Your task to perform on an android device: turn off wifi Image 0: 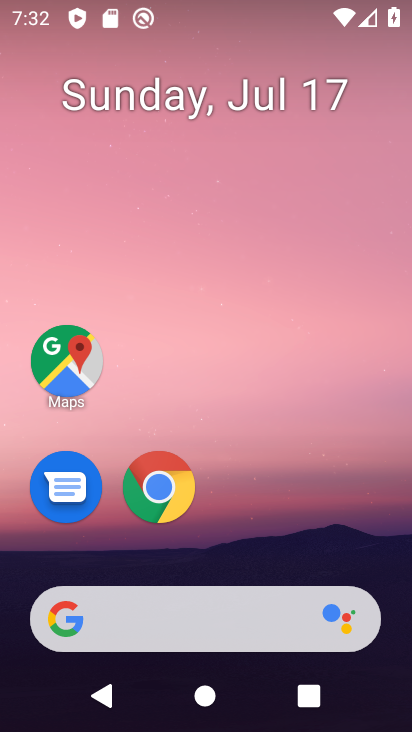
Step 0: drag from (360, 551) to (359, 61)
Your task to perform on an android device: turn off wifi Image 1: 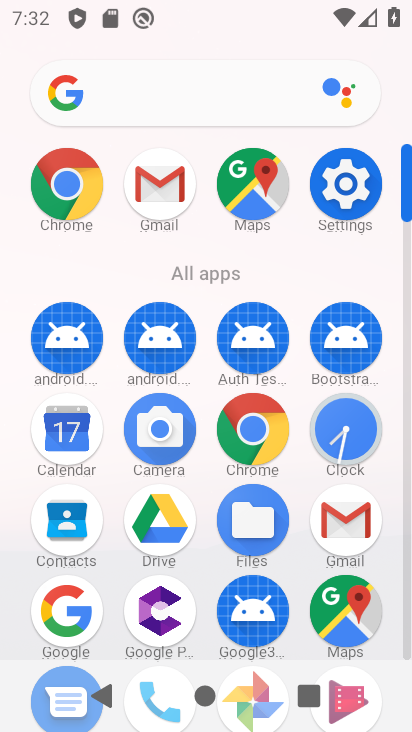
Step 1: click (364, 189)
Your task to perform on an android device: turn off wifi Image 2: 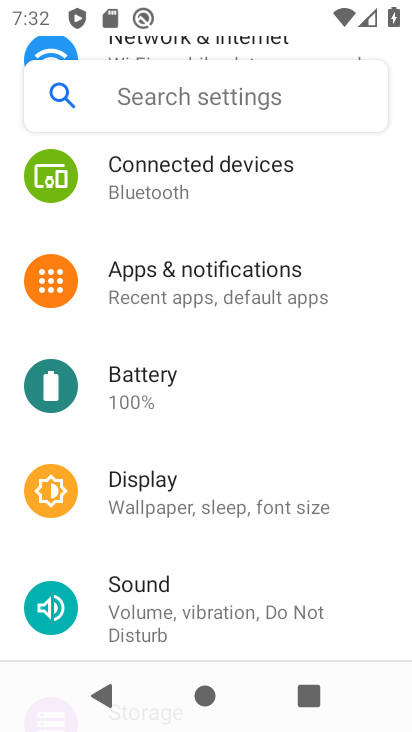
Step 2: drag from (298, 403) to (301, 349)
Your task to perform on an android device: turn off wifi Image 3: 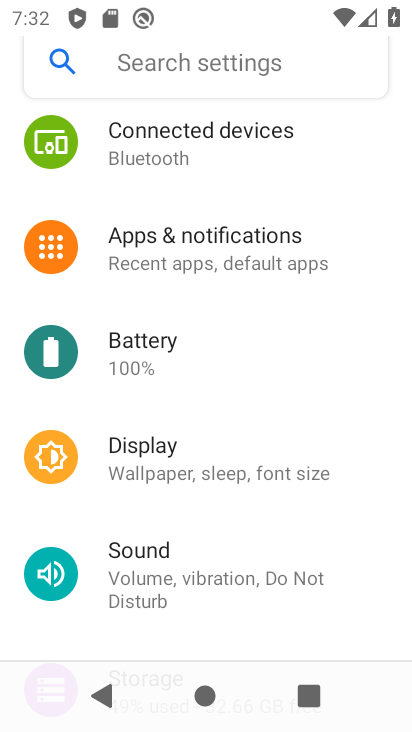
Step 3: drag from (356, 499) to (350, 398)
Your task to perform on an android device: turn off wifi Image 4: 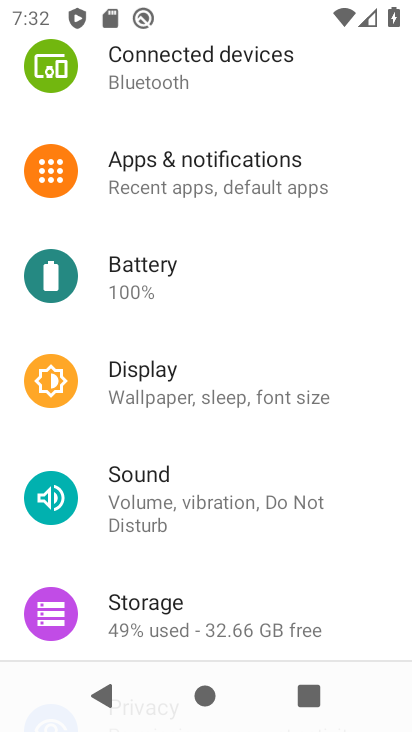
Step 4: drag from (356, 537) to (367, 425)
Your task to perform on an android device: turn off wifi Image 5: 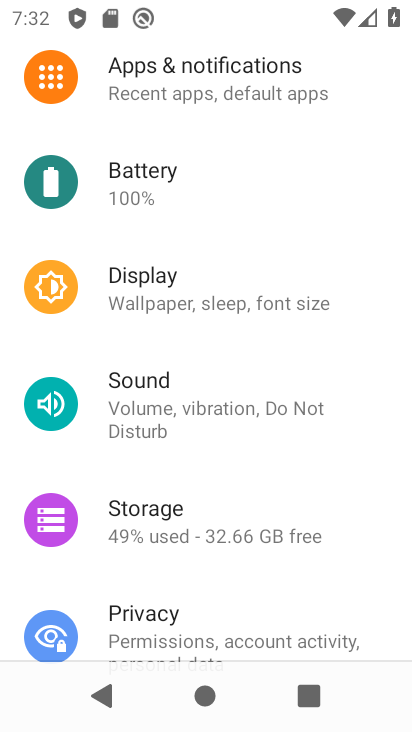
Step 5: drag from (363, 547) to (356, 417)
Your task to perform on an android device: turn off wifi Image 6: 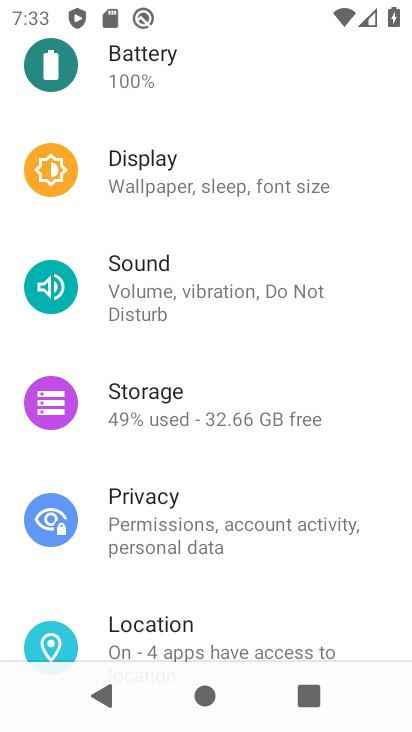
Step 6: drag from (343, 590) to (354, 456)
Your task to perform on an android device: turn off wifi Image 7: 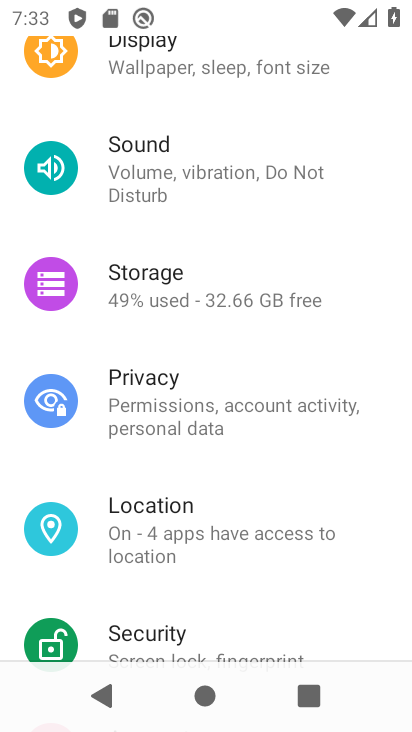
Step 7: drag from (351, 606) to (352, 455)
Your task to perform on an android device: turn off wifi Image 8: 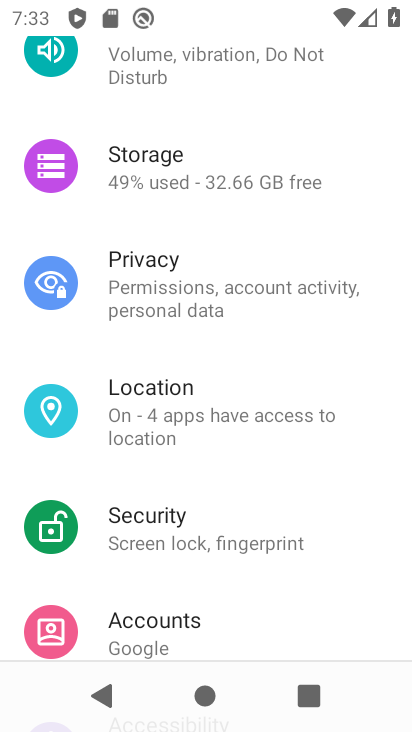
Step 8: drag from (333, 598) to (347, 461)
Your task to perform on an android device: turn off wifi Image 9: 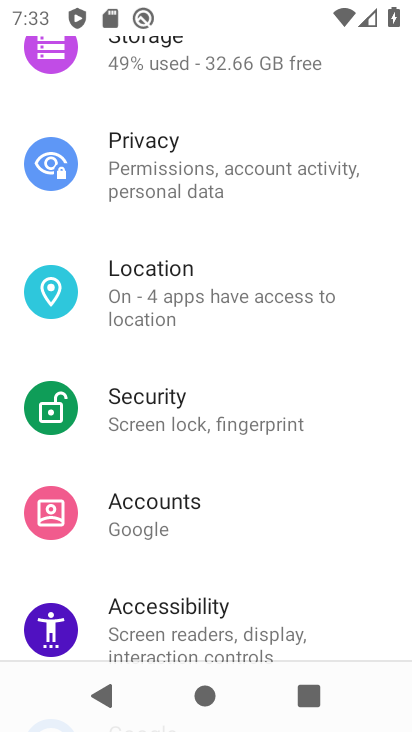
Step 9: drag from (352, 586) to (349, 459)
Your task to perform on an android device: turn off wifi Image 10: 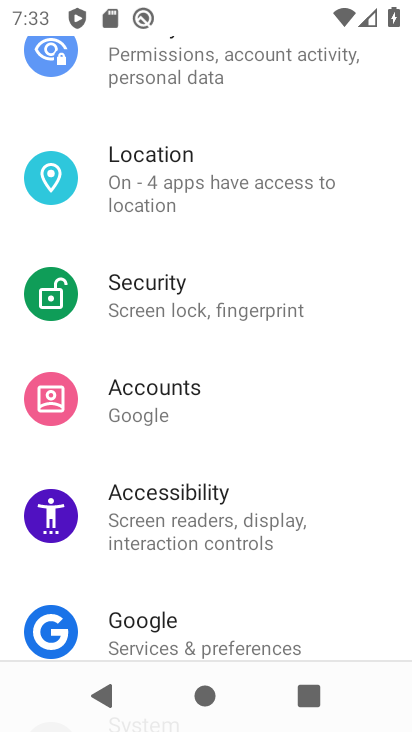
Step 10: drag from (342, 553) to (343, 435)
Your task to perform on an android device: turn off wifi Image 11: 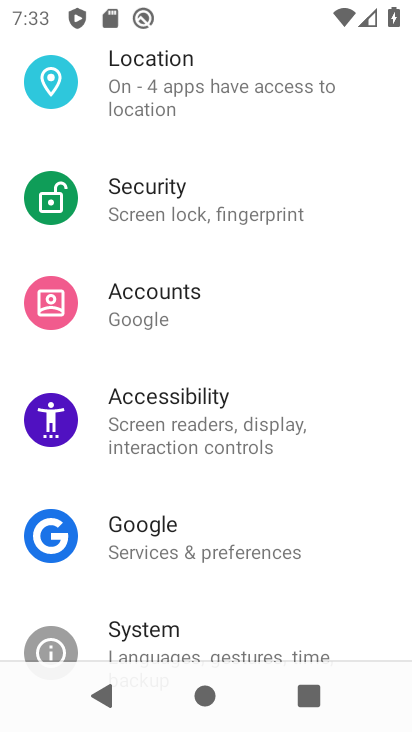
Step 11: drag from (344, 584) to (346, 451)
Your task to perform on an android device: turn off wifi Image 12: 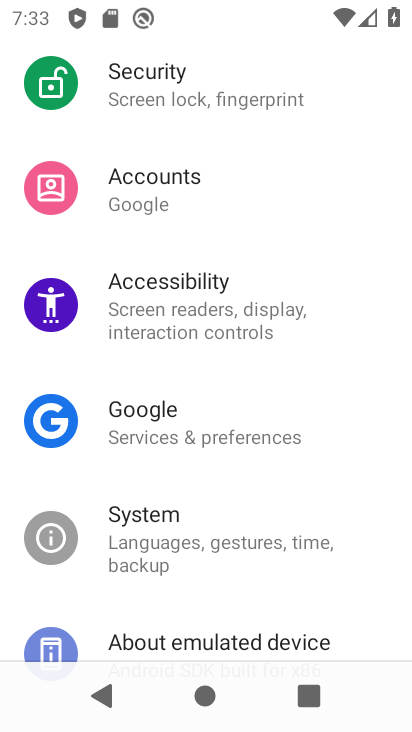
Step 12: drag from (360, 211) to (358, 310)
Your task to perform on an android device: turn off wifi Image 13: 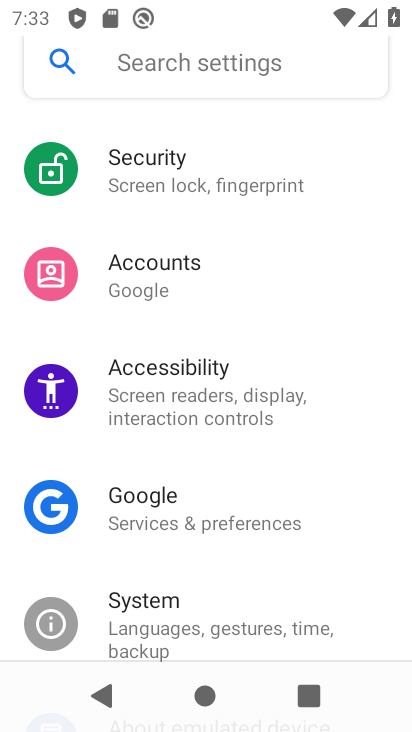
Step 13: drag from (352, 231) to (343, 349)
Your task to perform on an android device: turn off wifi Image 14: 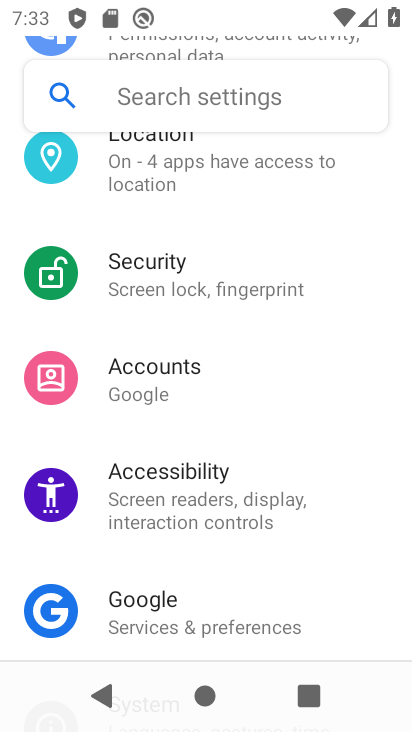
Step 14: drag from (335, 245) to (336, 353)
Your task to perform on an android device: turn off wifi Image 15: 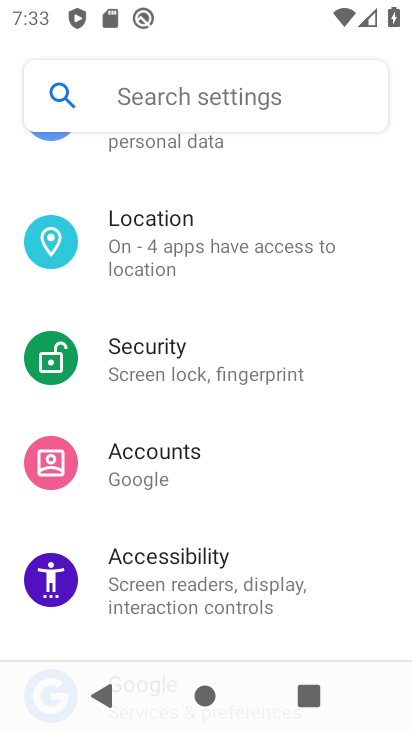
Step 15: drag from (366, 221) to (350, 337)
Your task to perform on an android device: turn off wifi Image 16: 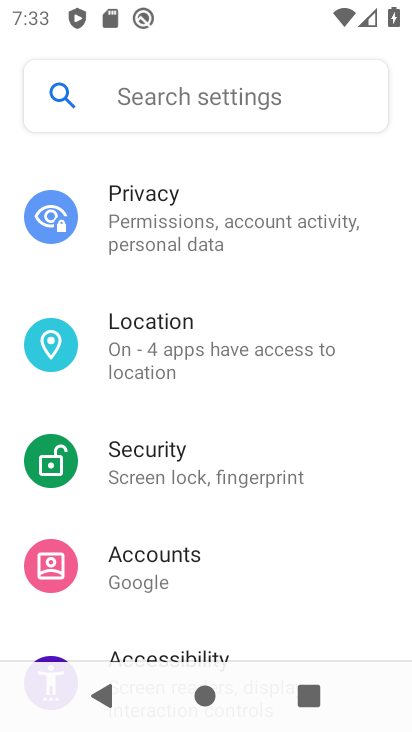
Step 16: drag from (370, 189) to (358, 321)
Your task to perform on an android device: turn off wifi Image 17: 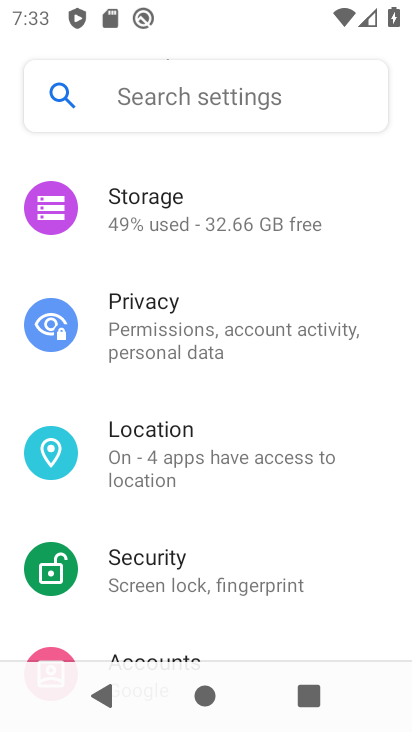
Step 17: drag from (369, 200) to (364, 391)
Your task to perform on an android device: turn off wifi Image 18: 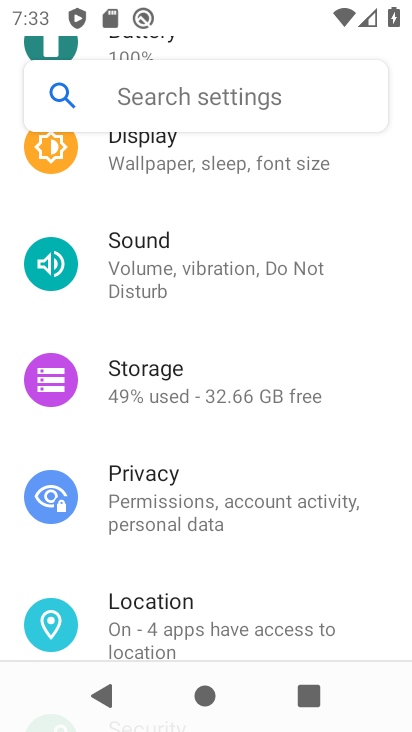
Step 18: drag from (357, 226) to (360, 367)
Your task to perform on an android device: turn off wifi Image 19: 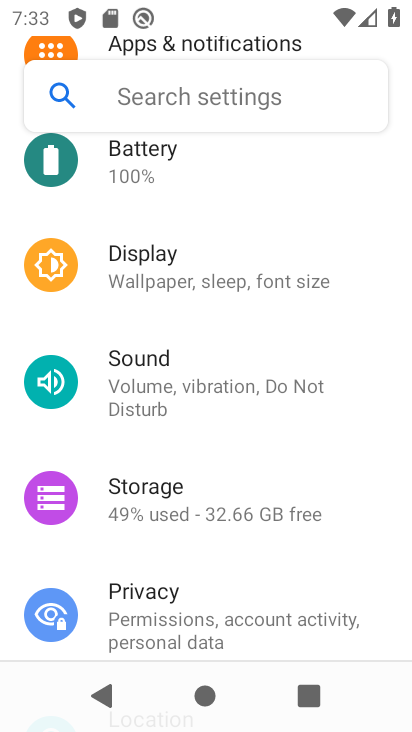
Step 19: drag from (358, 207) to (363, 339)
Your task to perform on an android device: turn off wifi Image 20: 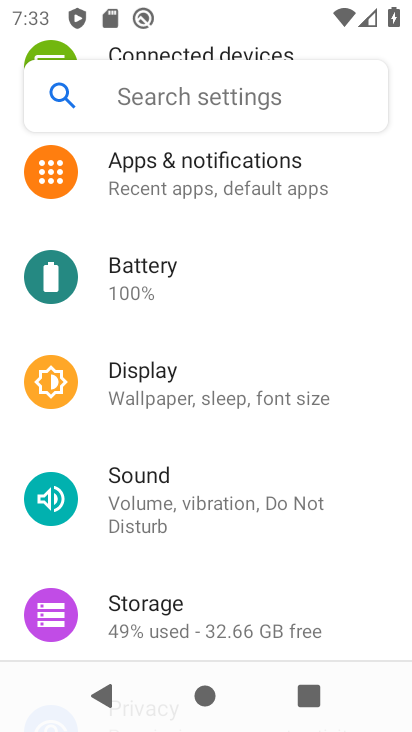
Step 20: drag from (355, 171) to (361, 315)
Your task to perform on an android device: turn off wifi Image 21: 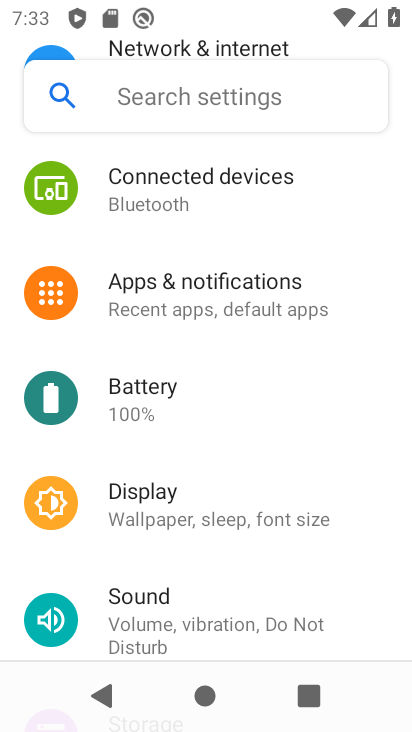
Step 21: drag from (343, 189) to (331, 420)
Your task to perform on an android device: turn off wifi Image 22: 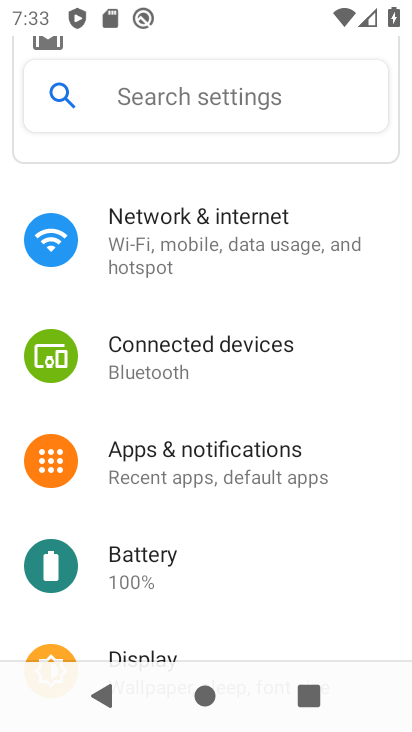
Step 22: click (308, 237)
Your task to perform on an android device: turn off wifi Image 23: 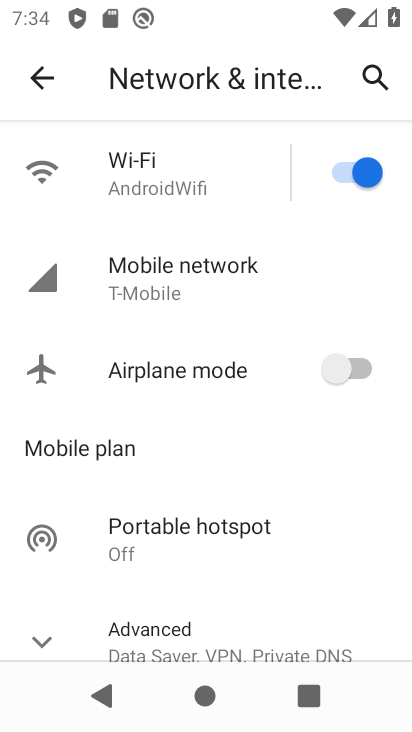
Step 23: click (373, 167)
Your task to perform on an android device: turn off wifi Image 24: 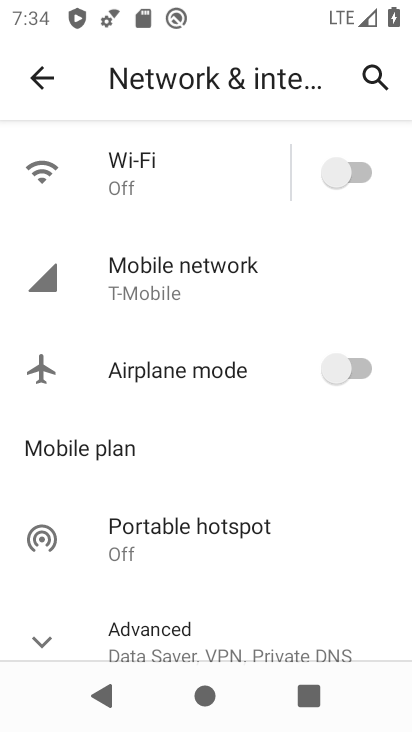
Step 24: task complete